Your task to perform on an android device: set the stopwatch Image 0: 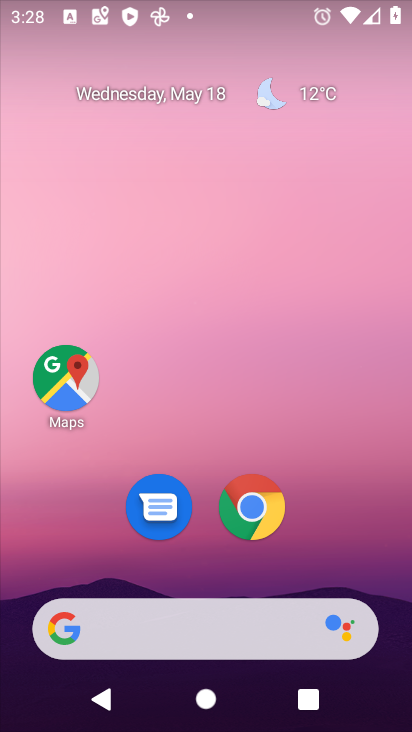
Step 0: drag from (398, 619) to (289, 196)
Your task to perform on an android device: set the stopwatch Image 1: 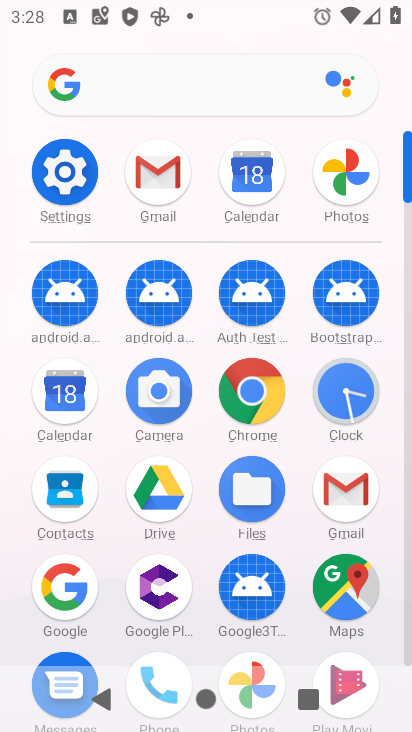
Step 1: click (407, 650)
Your task to perform on an android device: set the stopwatch Image 2: 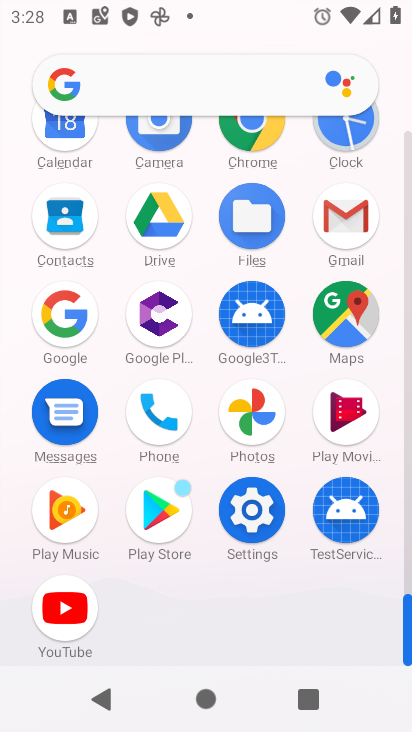
Step 2: click (340, 131)
Your task to perform on an android device: set the stopwatch Image 3: 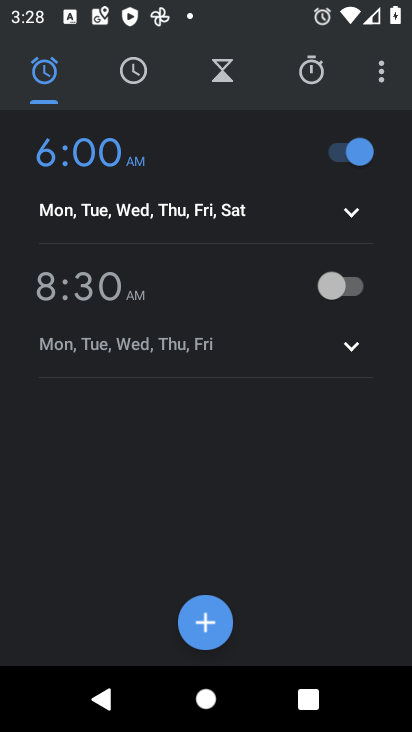
Step 3: click (309, 70)
Your task to perform on an android device: set the stopwatch Image 4: 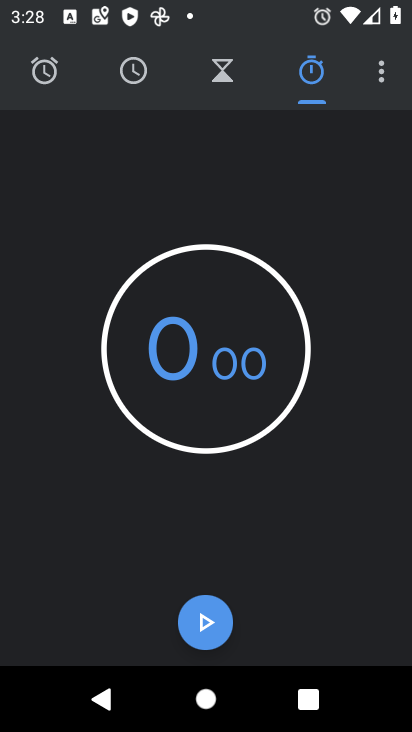
Step 4: task complete